Your task to perform on an android device: add a label to a message in the gmail app Image 0: 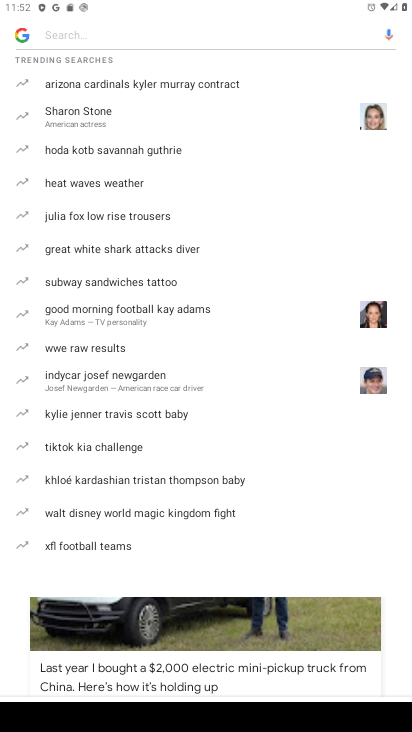
Step 0: press home button
Your task to perform on an android device: add a label to a message in the gmail app Image 1: 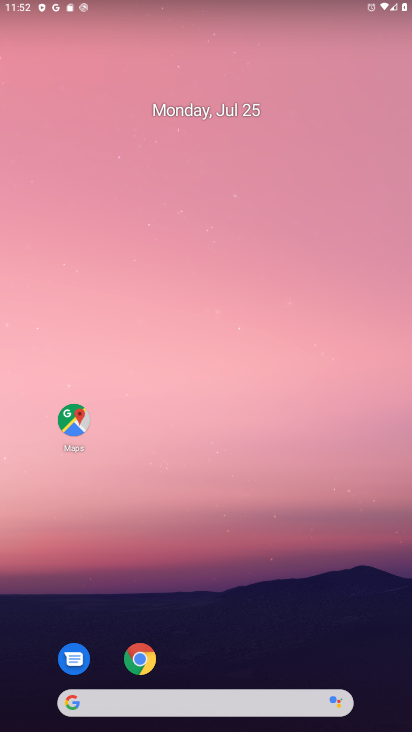
Step 1: drag from (225, 603) to (161, 17)
Your task to perform on an android device: add a label to a message in the gmail app Image 2: 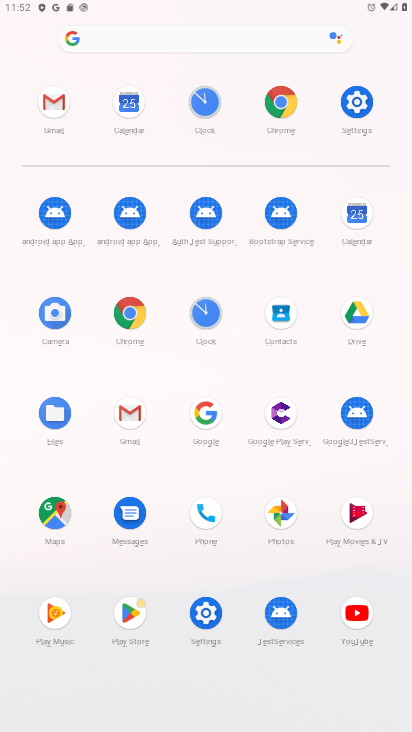
Step 2: click (131, 412)
Your task to perform on an android device: add a label to a message in the gmail app Image 3: 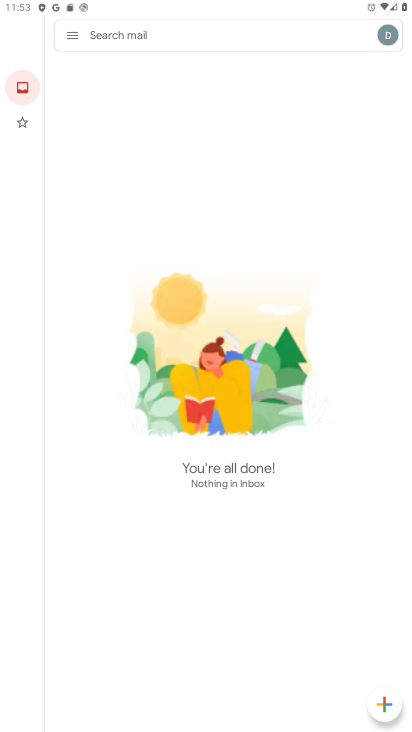
Step 3: click (73, 37)
Your task to perform on an android device: add a label to a message in the gmail app Image 4: 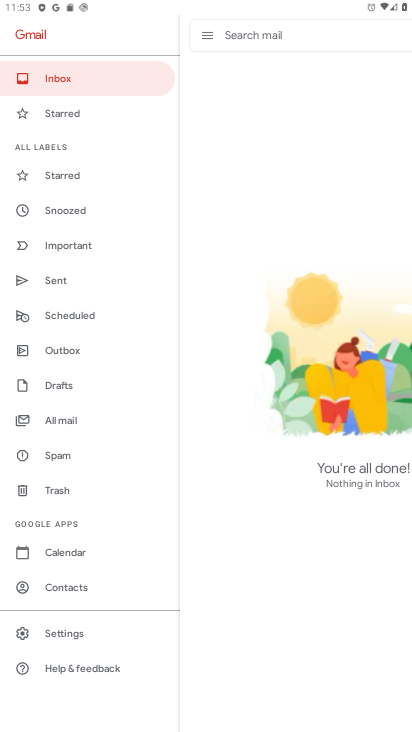
Step 4: click (59, 418)
Your task to perform on an android device: add a label to a message in the gmail app Image 5: 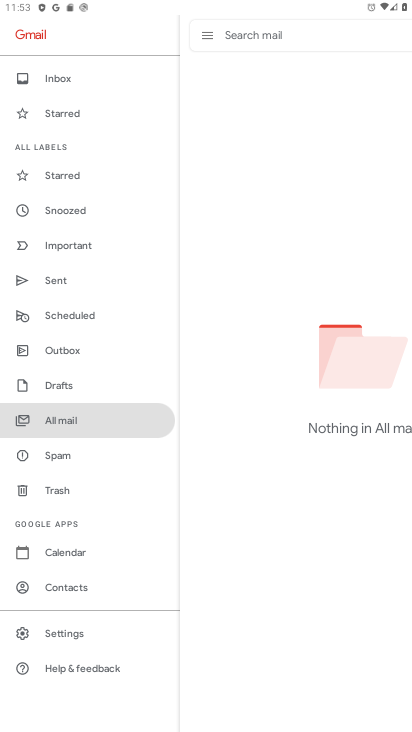
Step 5: click (59, 418)
Your task to perform on an android device: add a label to a message in the gmail app Image 6: 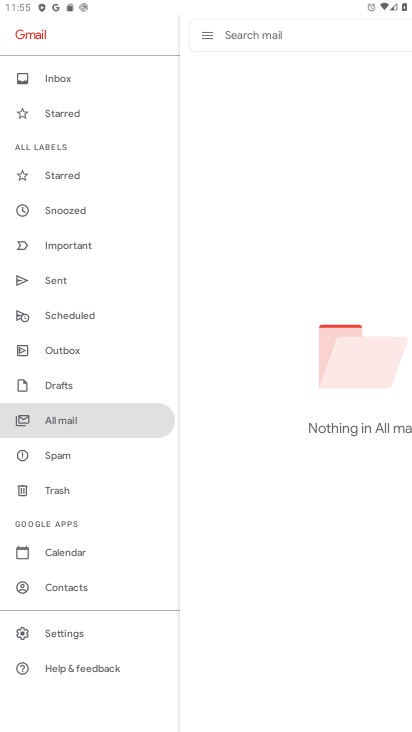
Step 6: task complete